Your task to perform on an android device: turn on wifi Image 0: 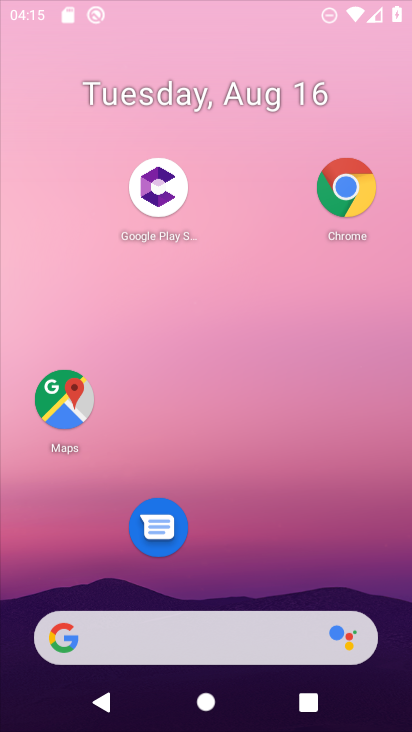
Step 0: press home button
Your task to perform on an android device: turn on wifi Image 1: 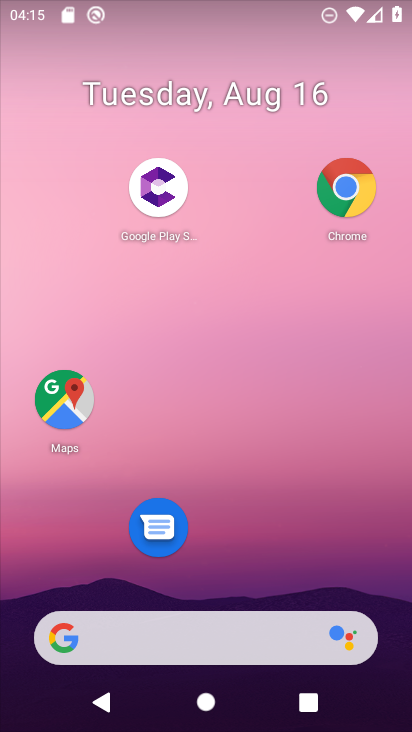
Step 1: task complete